Your task to perform on an android device: Show the shopping cart on ebay. Search for "acer predator" on ebay, select the first entry, add it to the cart, then select checkout. Image 0: 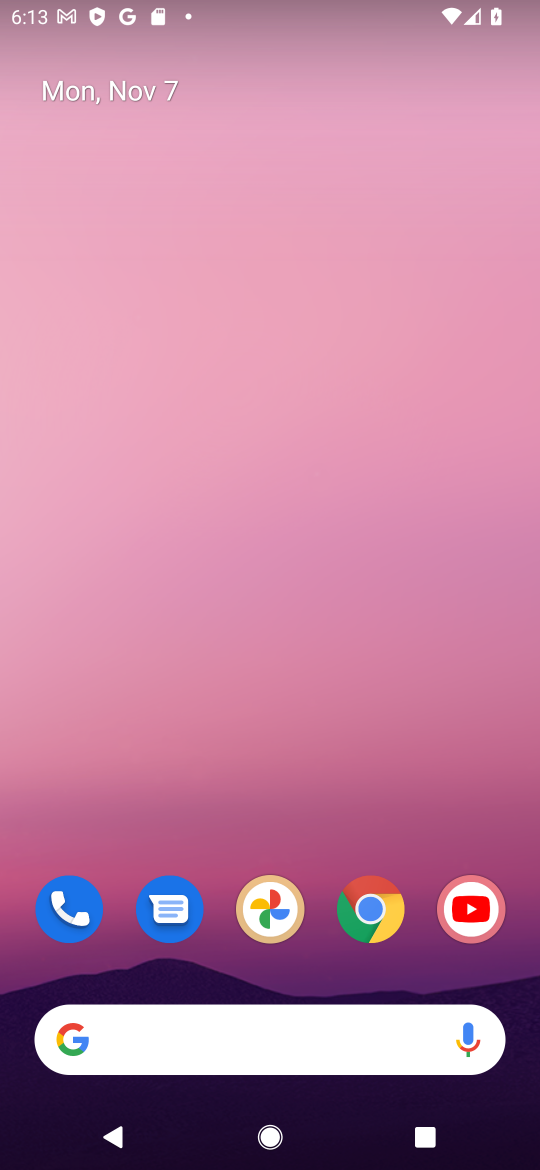
Step 0: click (384, 905)
Your task to perform on an android device: Show the shopping cart on ebay. Search for "acer predator" on ebay, select the first entry, add it to the cart, then select checkout. Image 1: 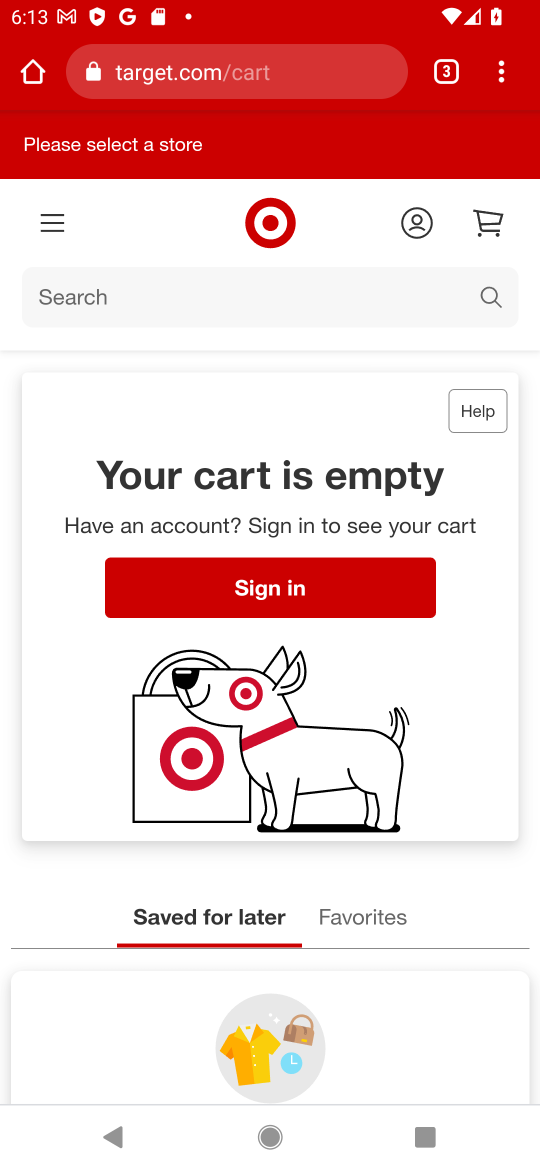
Step 1: click (447, 68)
Your task to perform on an android device: Show the shopping cart on ebay. Search for "acer predator" on ebay, select the first entry, add it to the cart, then select checkout. Image 2: 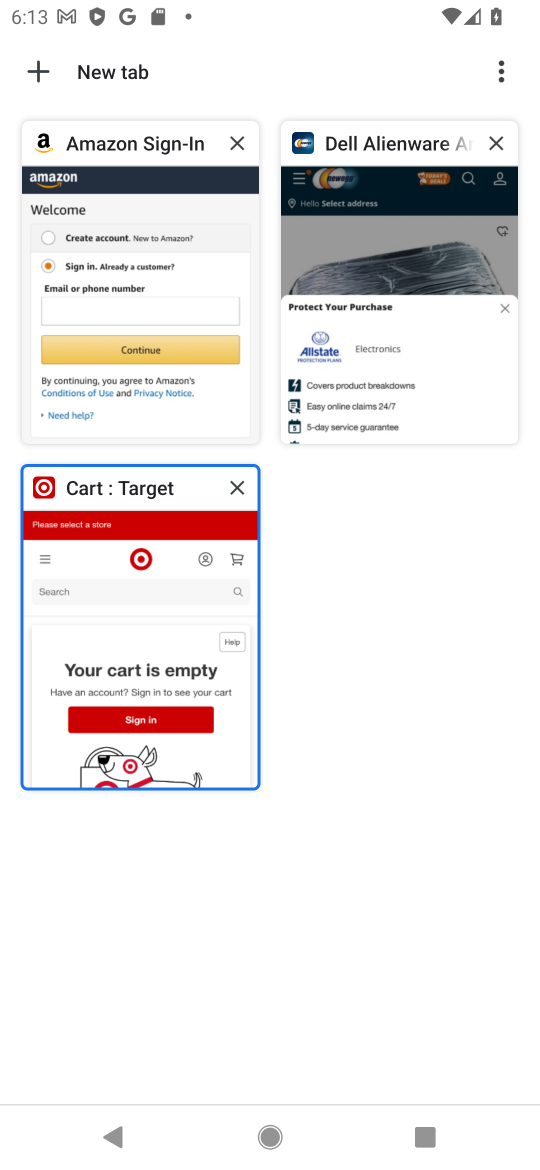
Step 2: click (42, 71)
Your task to perform on an android device: Show the shopping cart on ebay. Search for "acer predator" on ebay, select the first entry, add it to the cart, then select checkout. Image 3: 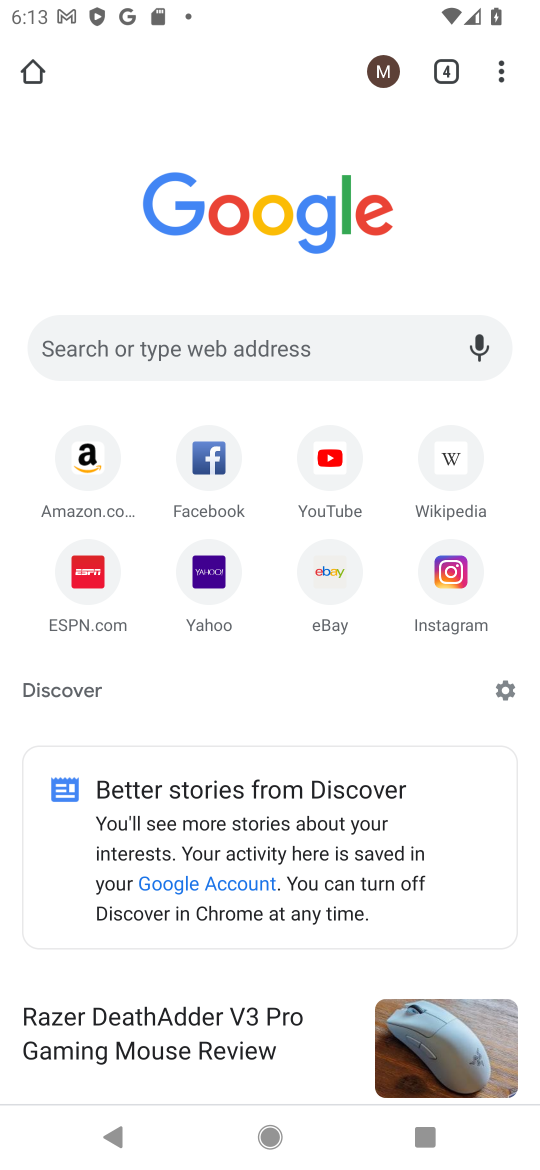
Step 3: click (315, 572)
Your task to perform on an android device: Show the shopping cart on ebay. Search for "acer predator" on ebay, select the first entry, add it to the cart, then select checkout. Image 4: 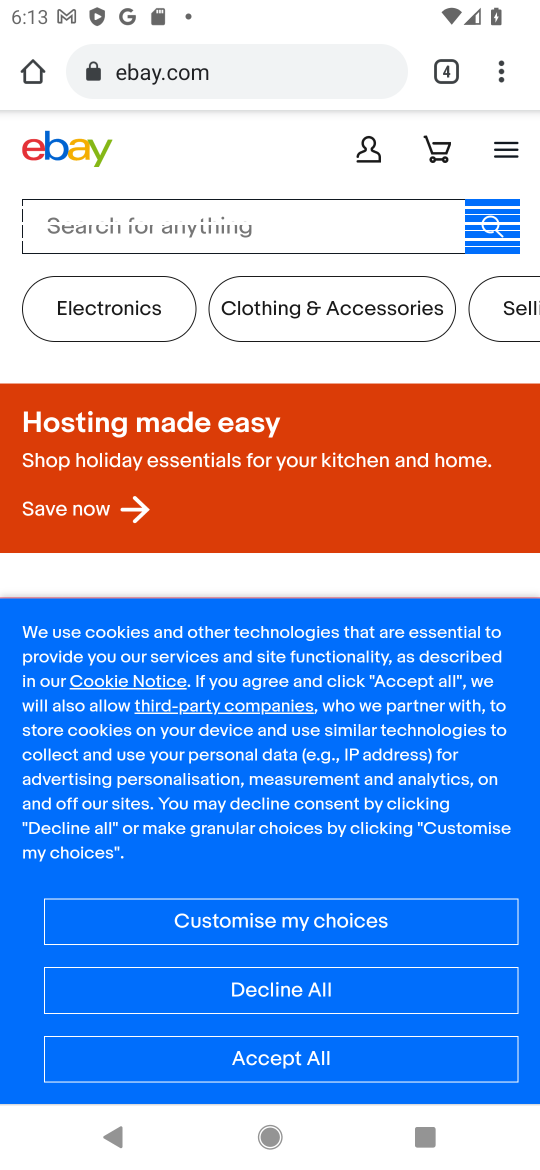
Step 4: click (298, 987)
Your task to perform on an android device: Show the shopping cart on ebay. Search for "acer predator" on ebay, select the first entry, add it to the cart, then select checkout. Image 5: 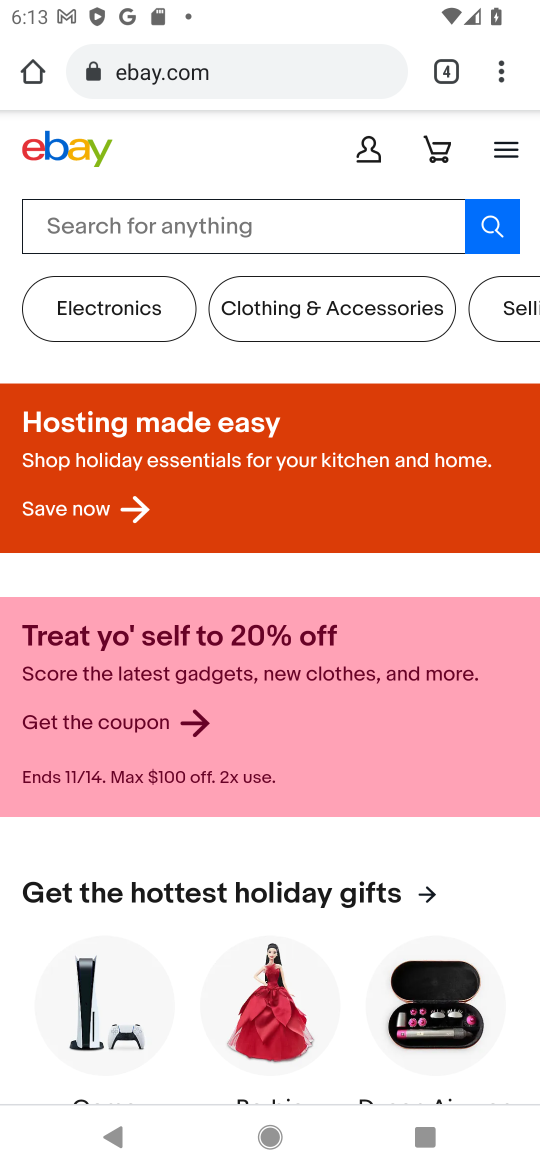
Step 5: click (231, 211)
Your task to perform on an android device: Show the shopping cart on ebay. Search for "acer predator" on ebay, select the first entry, add it to the cart, then select checkout. Image 6: 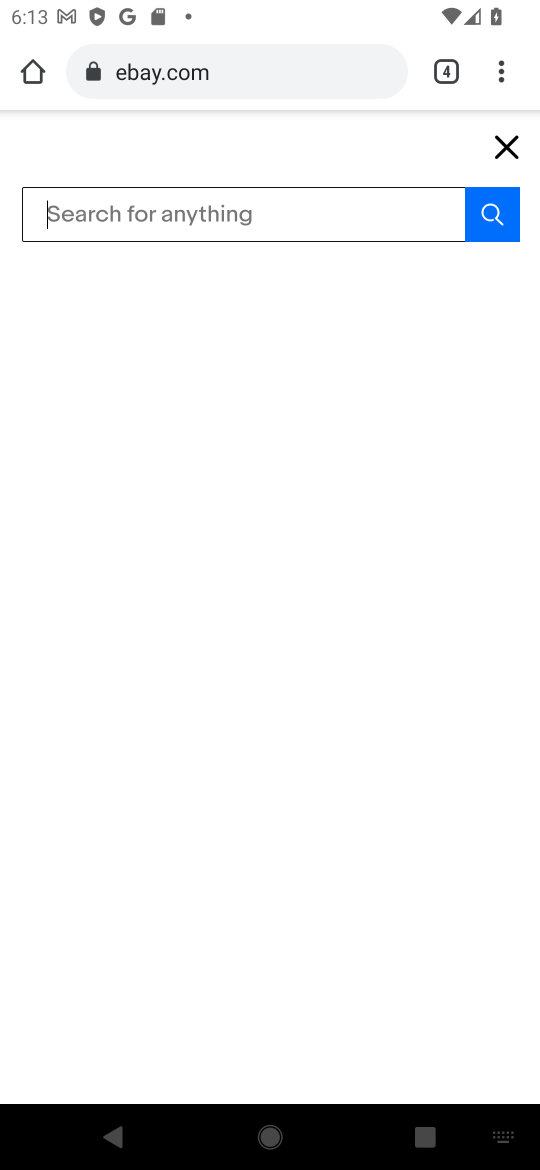
Step 6: type "acer predator"
Your task to perform on an android device: Show the shopping cart on ebay. Search for "acer predator" on ebay, select the first entry, add it to the cart, then select checkout. Image 7: 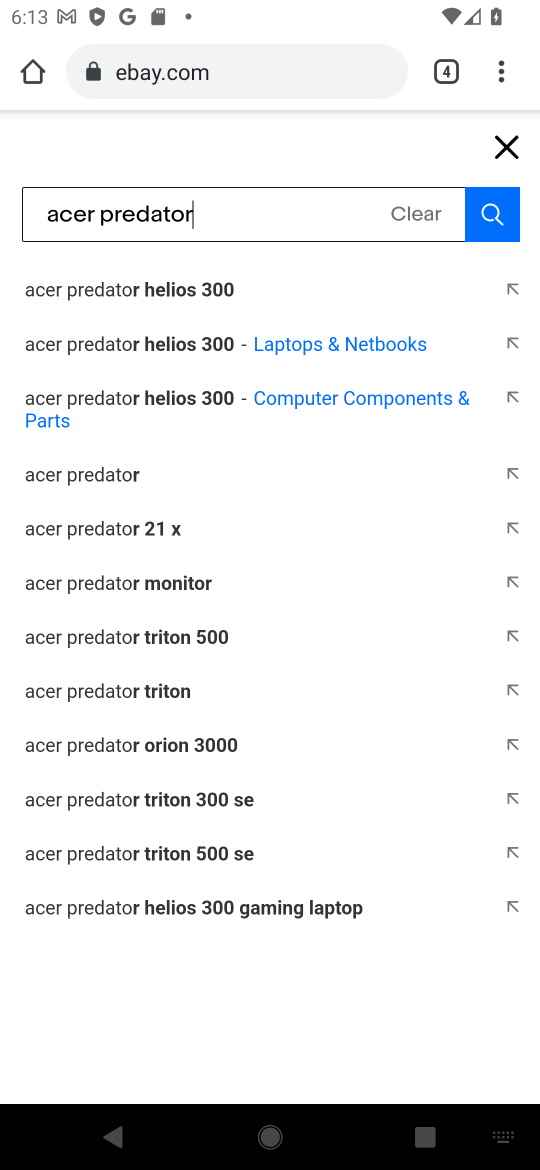
Step 7: click (186, 340)
Your task to perform on an android device: Show the shopping cart on ebay. Search for "acer predator" on ebay, select the first entry, add it to the cart, then select checkout. Image 8: 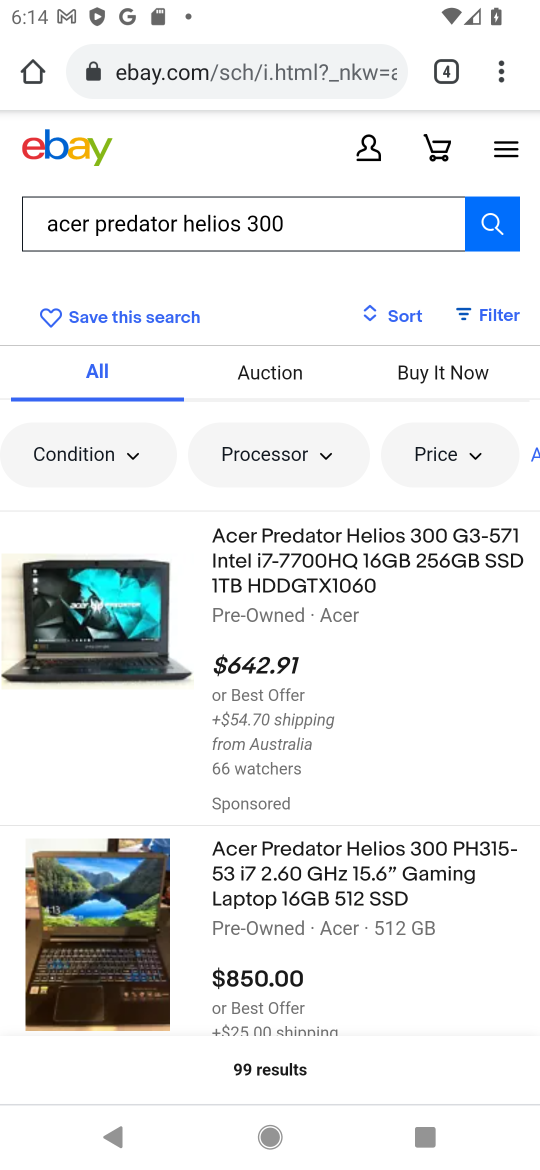
Step 8: click (301, 562)
Your task to perform on an android device: Show the shopping cart on ebay. Search for "acer predator" on ebay, select the first entry, add it to the cart, then select checkout. Image 9: 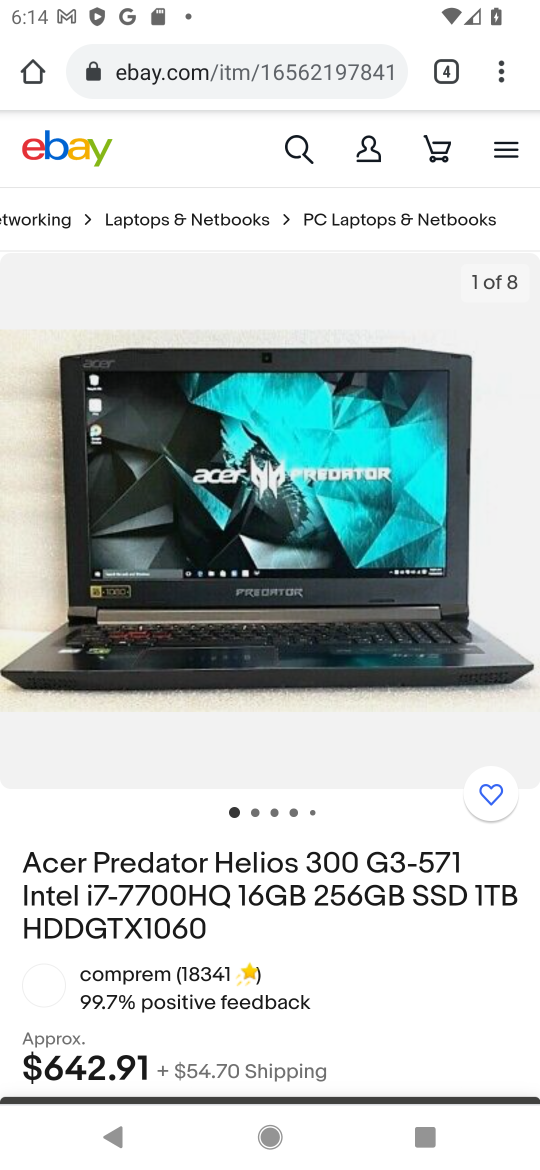
Step 9: drag from (403, 948) to (457, 488)
Your task to perform on an android device: Show the shopping cart on ebay. Search for "acer predator" on ebay, select the first entry, add it to the cart, then select checkout. Image 10: 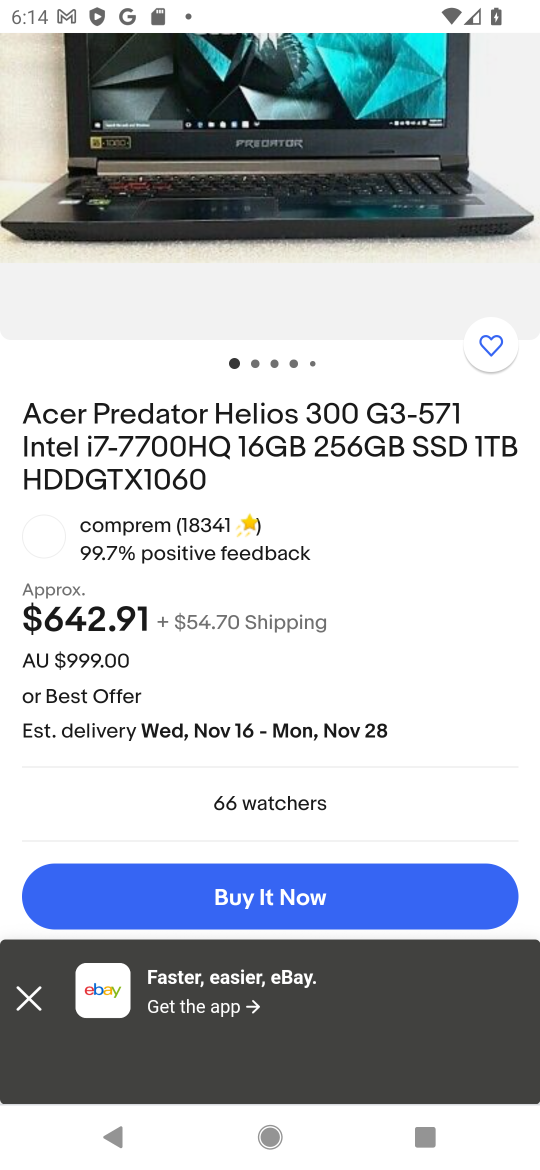
Step 10: click (26, 1001)
Your task to perform on an android device: Show the shopping cart on ebay. Search for "acer predator" on ebay, select the first entry, add it to the cart, then select checkout. Image 11: 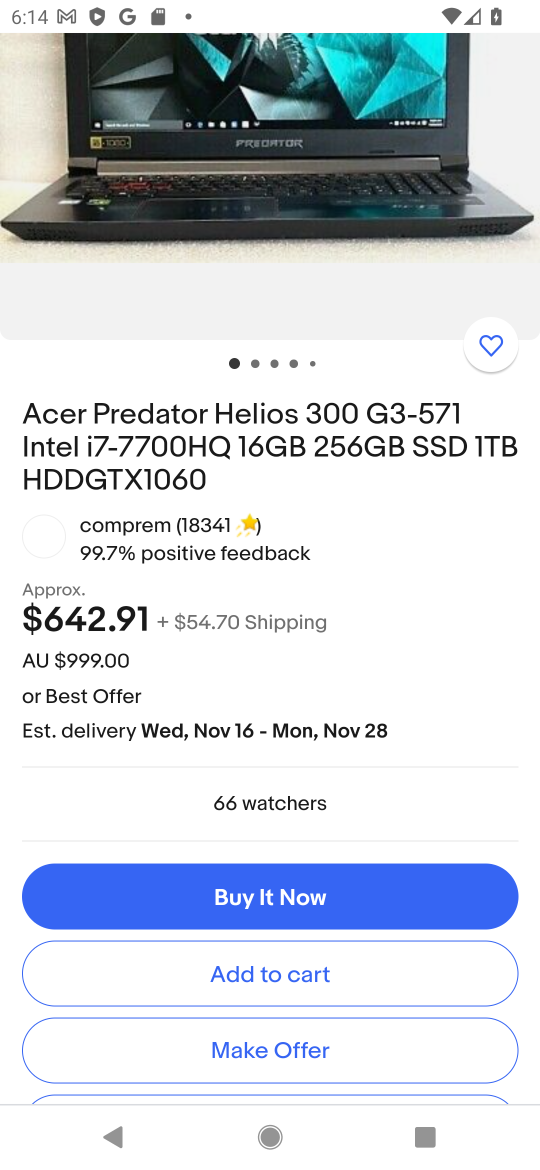
Step 11: click (245, 982)
Your task to perform on an android device: Show the shopping cart on ebay. Search for "acer predator" on ebay, select the first entry, add it to the cart, then select checkout. Image 12: 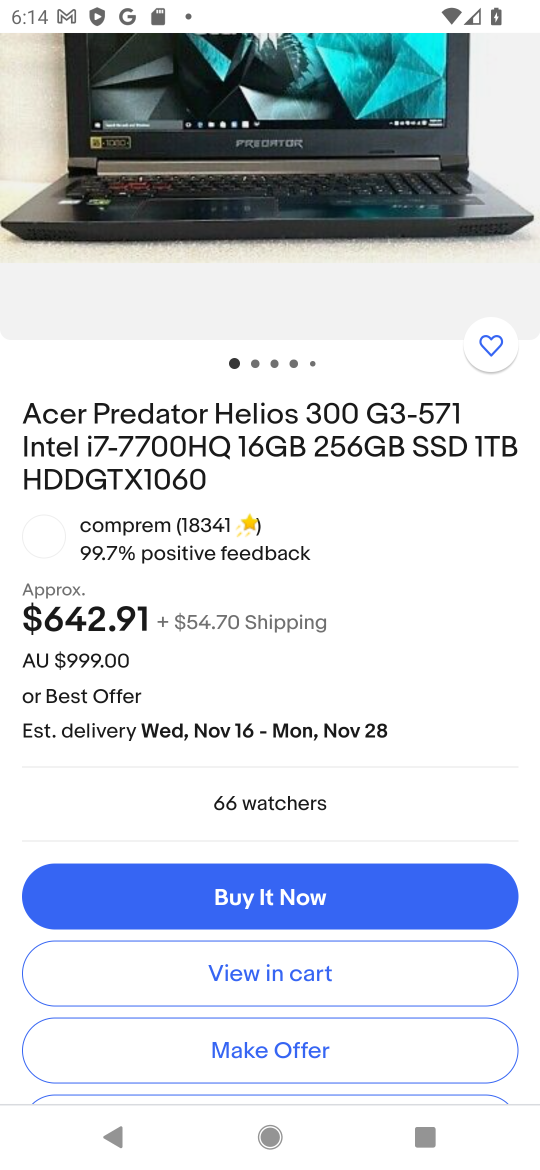
Step 12: task complete